Your task to perform on an android device: turn off data saver in the chrome app Image 0: 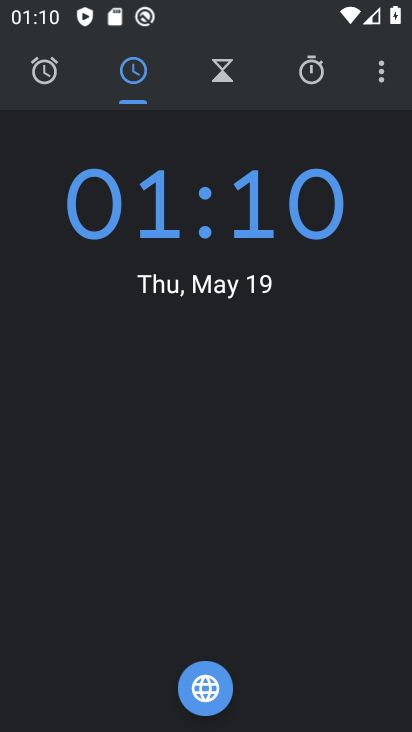
Step 0: press home button
Your task to perform on an android device: turn off data saver in the chrome app Image 1: 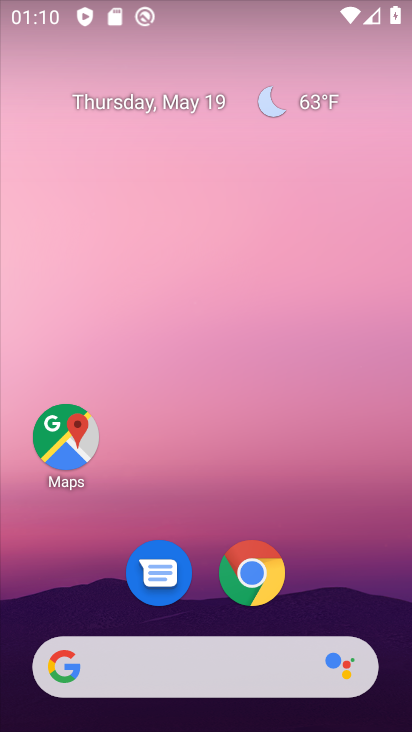
Step 1: click (252, 585)
Your task to perform on an android device: turn off data saver in the chrome app Image 2: 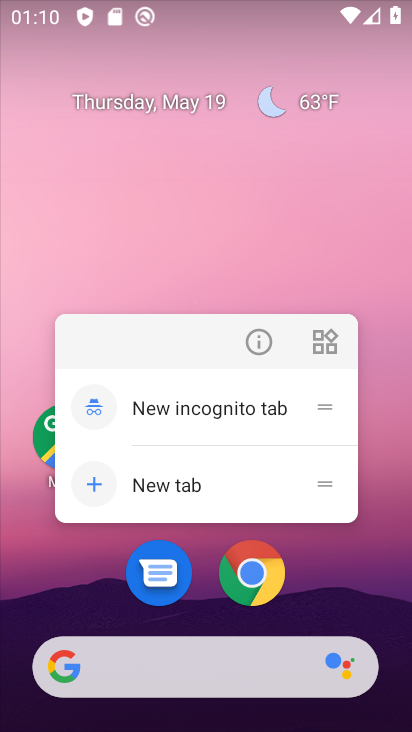
Step 2: click (252, 585)
Your task to perform on an android device: turn off data saver in the chrome app Image 3: 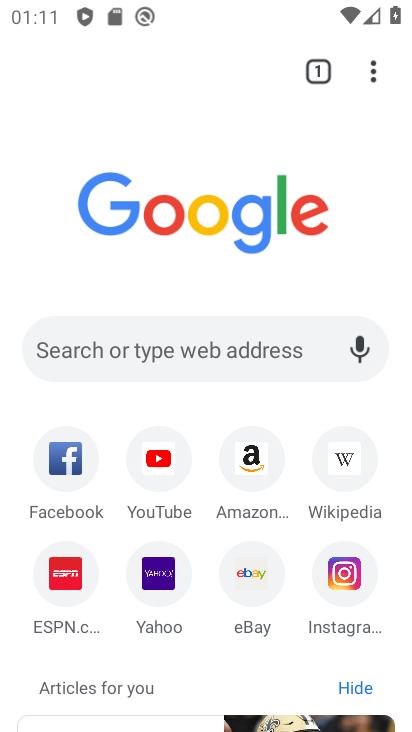
Step 3: click (386, 61)
Your task to perform on an android device: turn off data saver in the chrome app Image 4: 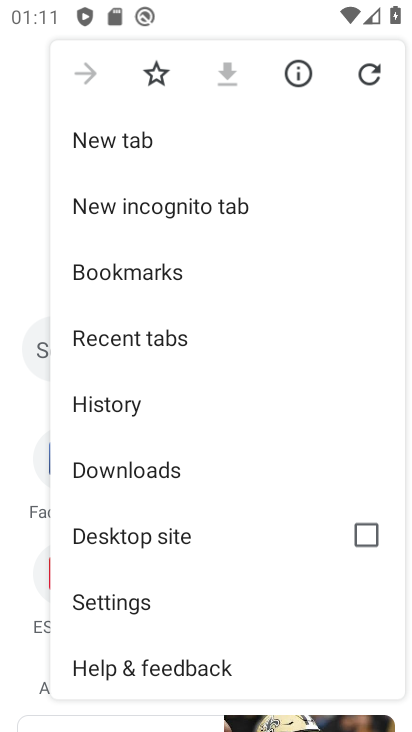
Step 4: click (197, 603)
Your task to perform on an android device: turn off data saver in the chrome app Image 5: 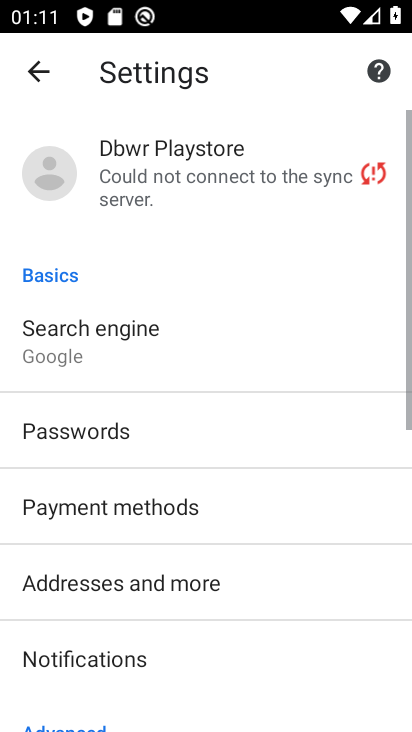
Step 5: drag from (197, 603) to (204, 401)
Your task to perform on an android device: turn off data saver in the chrome app Image 6: 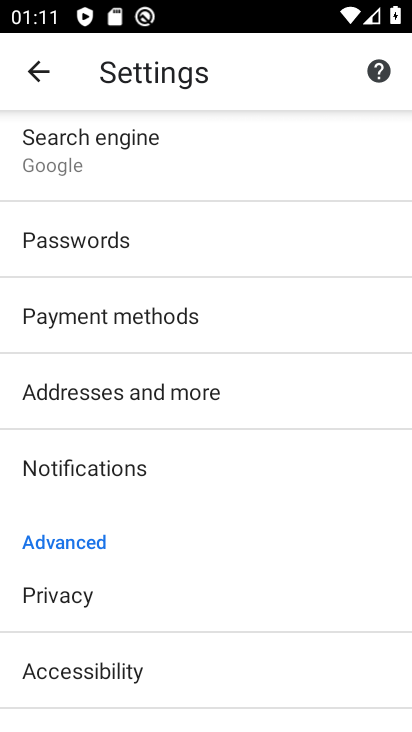
Step 6: drag from (191, 590) to (191, 475)
Your task to perform on an android device: turn off data saver in the chrome app Image 7: 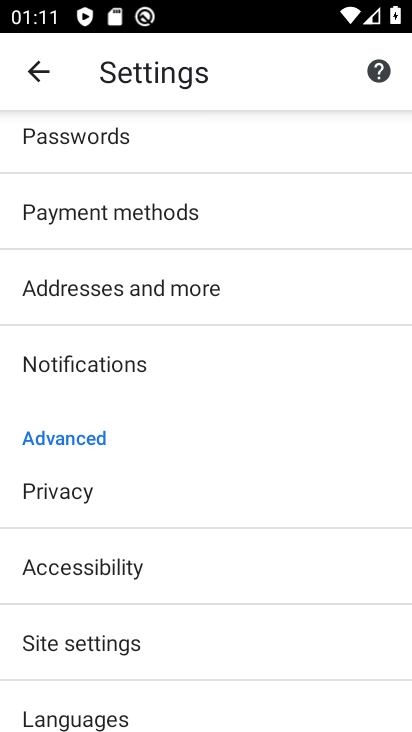
Step 7: drag from (160, 639) to (162, 430)
Your task to perform on an android device: turn off data saver in the chrome app Image 8: 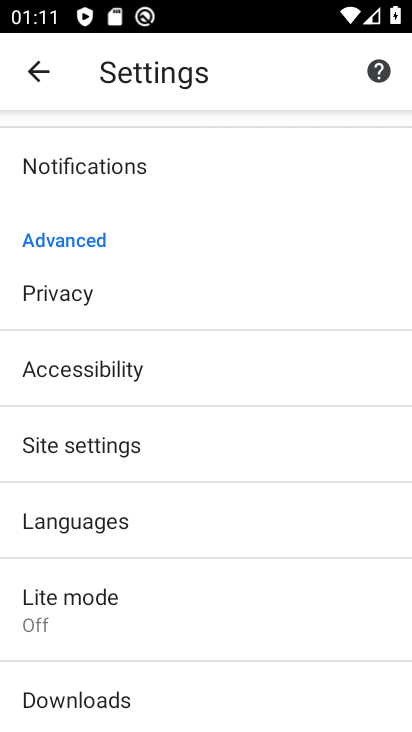
Step 8: click (144, 590)
Your task to perform on an android device: turn off data saver in the chrome app Image 9: 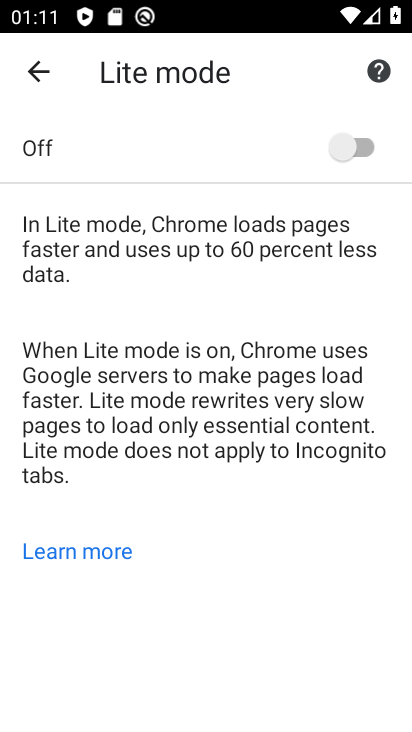
Step 9: click (314, 175)
Your task to perform on an android device: turn off data saver in the chrome app Image 10: 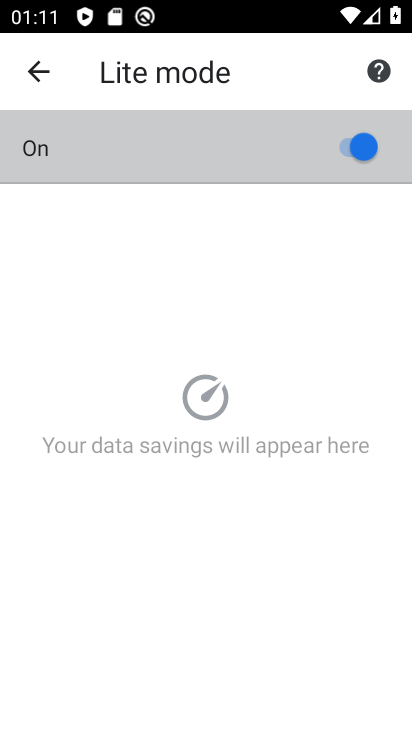
Step 10: click (314, 175)
Your task to perform on an android device: turn off data saver in the chrome app Image 11: 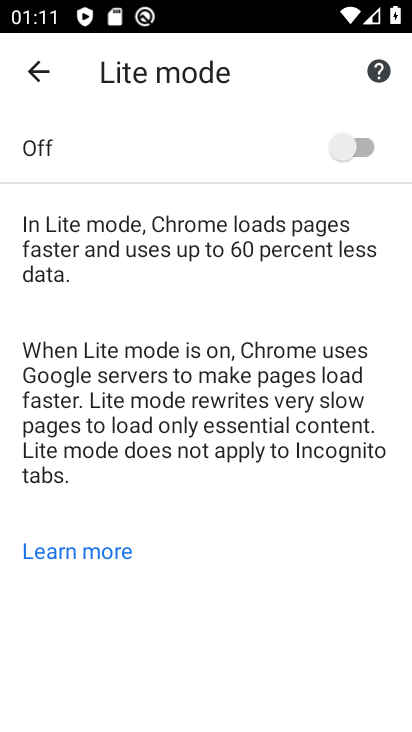
Step 11: task complete